Your task to perform on an android device: change the clock display to digital Image 0: 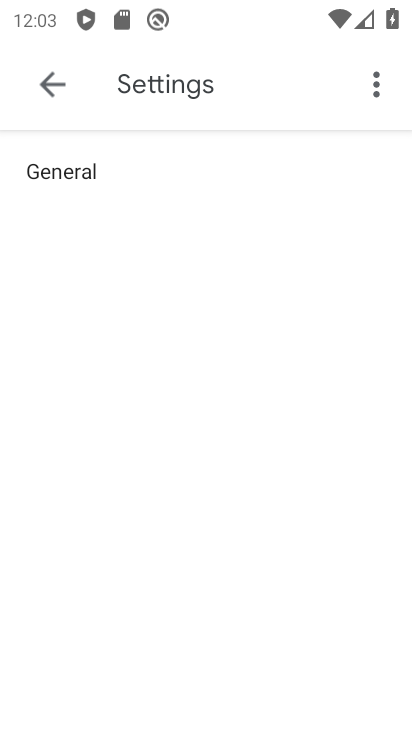
Step 0: press home button
Your task to perform on an android device: change the clock display to digital Image 1: 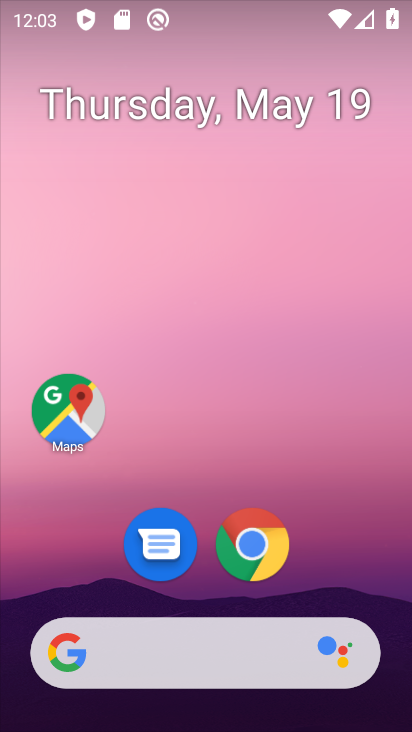
Step 1: drag from (373, 540) to (276, 137)
Your task to perform on an android device: change the clock display to digital Image 2: 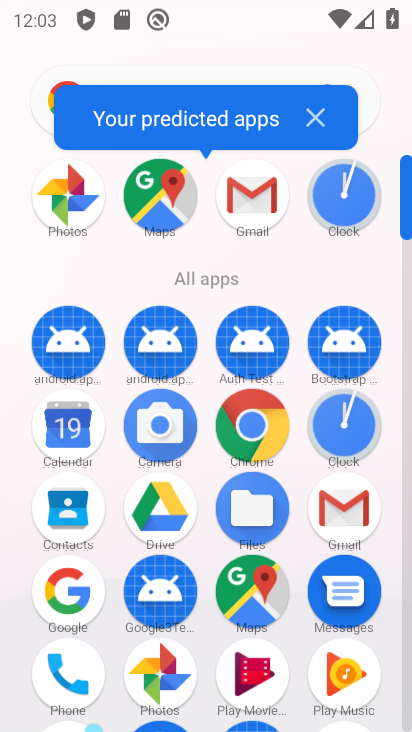
Step 2: click (317, 122)
Your task to perform on an android device: change the clock display to digital Image 3: 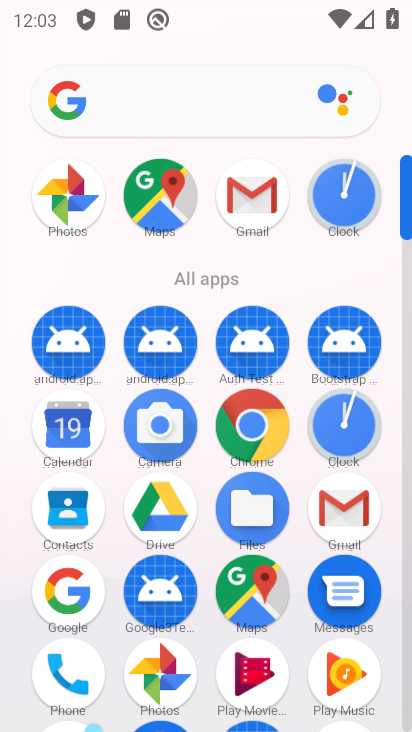
Step 3: click (340, 204)
Your task to perform on an android device: change the clock display to digital Image 4: 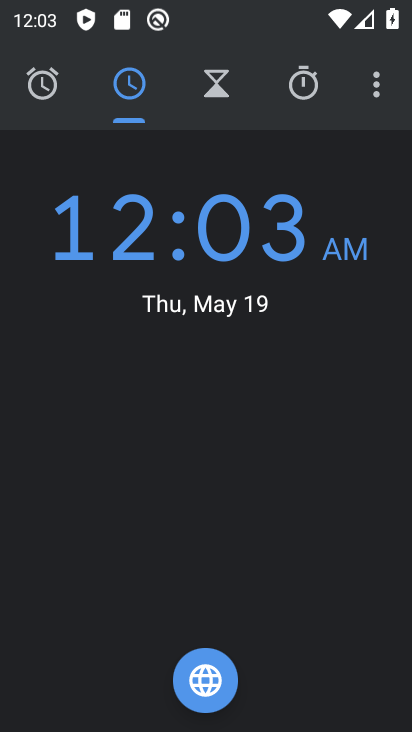
Step 4: click (391, 93)
Your task to perform on an android device: change the clock display to digital Image 5: 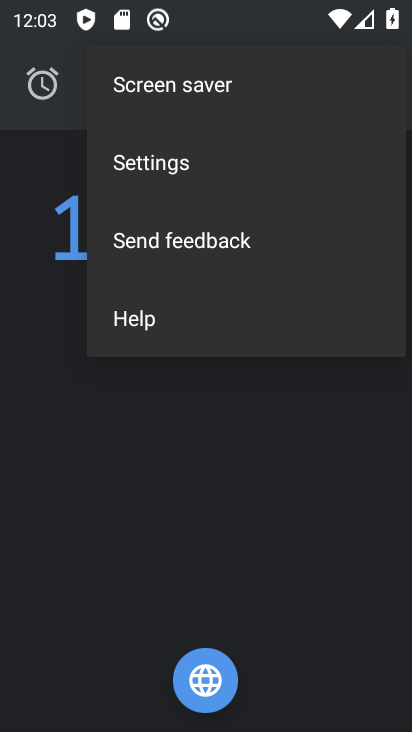
Step 5: click (194, 172)
Your task to perform on an android device: change the clock display to digital Image 6: 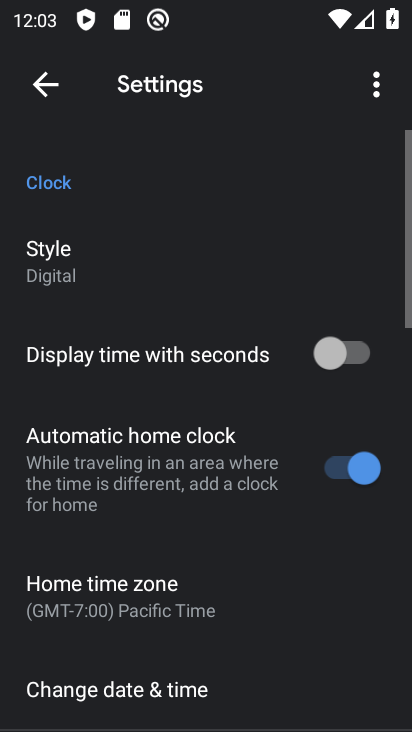
Step 6: click (159, 249)
Your task to perform on an android device: change the clock display to digital Image 7: 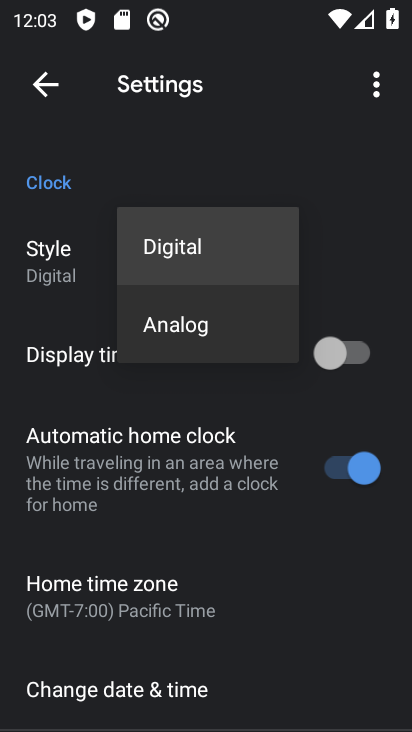
Step 7: task complete